Your task to perform on an android device: turn off smart reply in the gmail app Image 0: 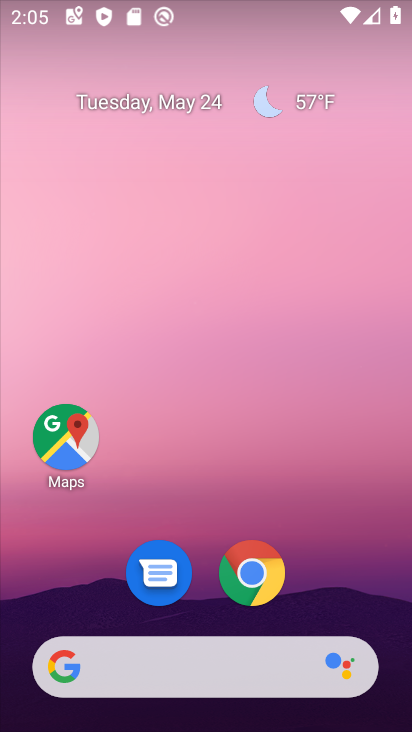
Step 0: drag from (332, 564) to (320, 86)
Your task to perform on an android device: turn off smart reply in the gmail app Image 1: 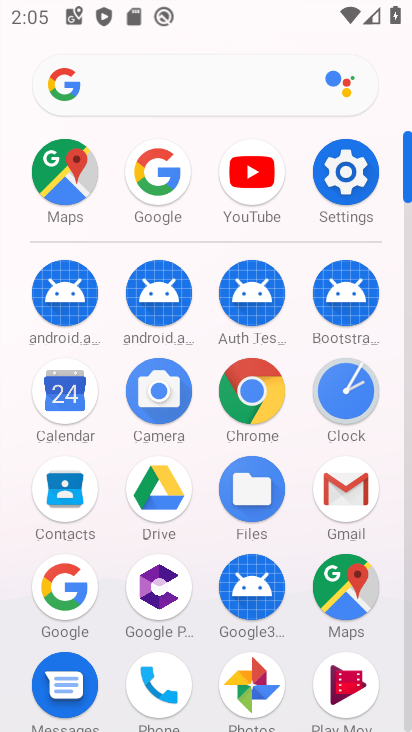
Step 1: click (344, 486)
Your task to perform on an android device: turn off smart reply in the gmail app Image 2: 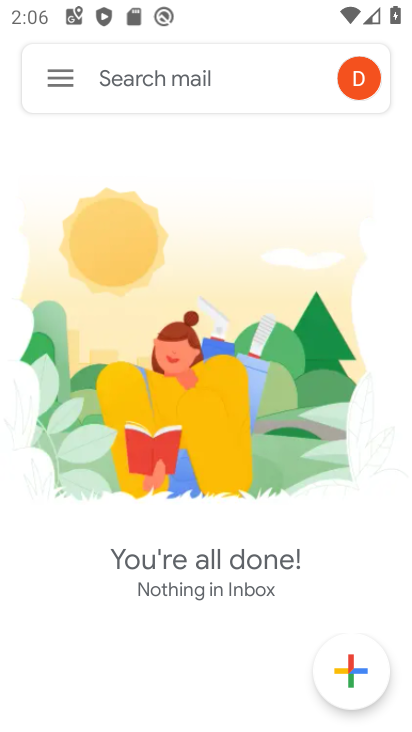
Step 2: click (58, 99)
Your task to perform on an android device: turn off smart reply in the gmail app Image 3: 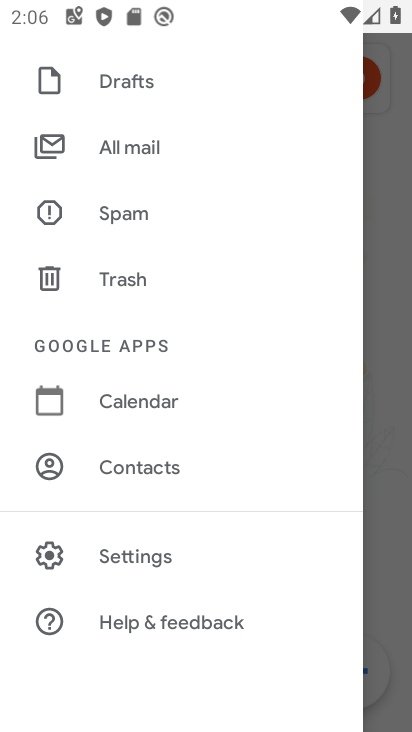
Step 3: click (184, 551)
Your task to perform on an android device: turn off smart reply in the gmail app Image 4: 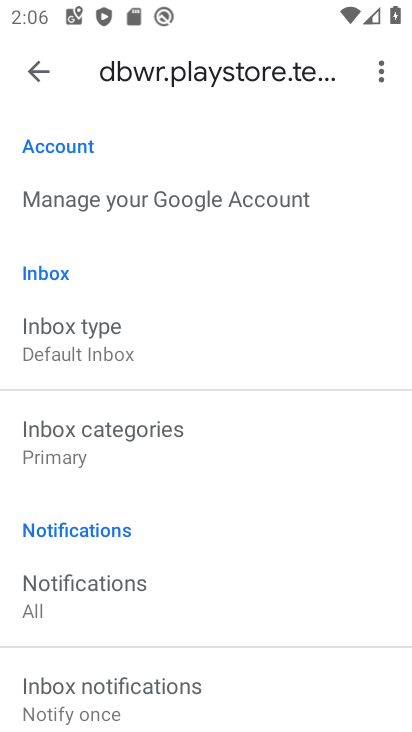
Step 4: drag from (187, 613) to (196, 301)
Your task to perform on an android device: turn off smart reply in the gmail app Image 5: 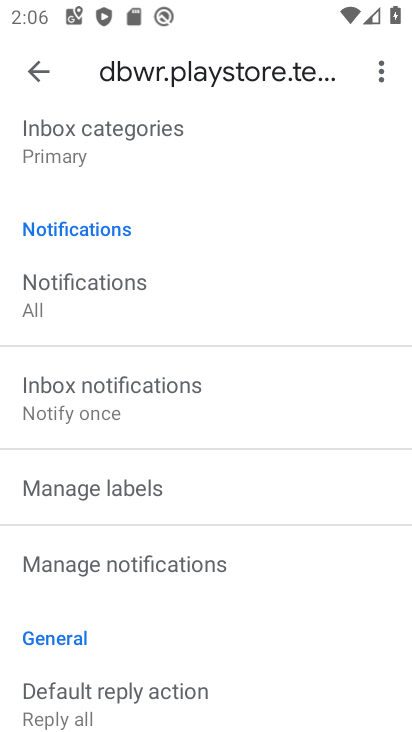
Step 5: drag from (202, 616) to (219, 183)
Your task to perform on an android device: turn off smart reply in the gmail app Image 6: 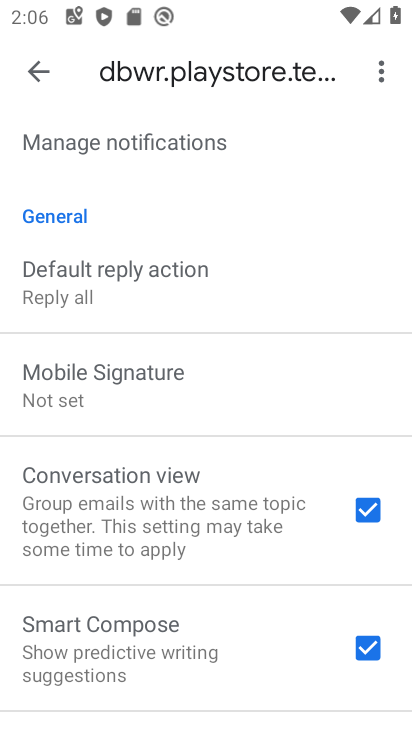
Step 6: drag from (296, 614) to (300, 413)
Your task to perform on an android device: turn off smart reply in the gmail app Image 7: 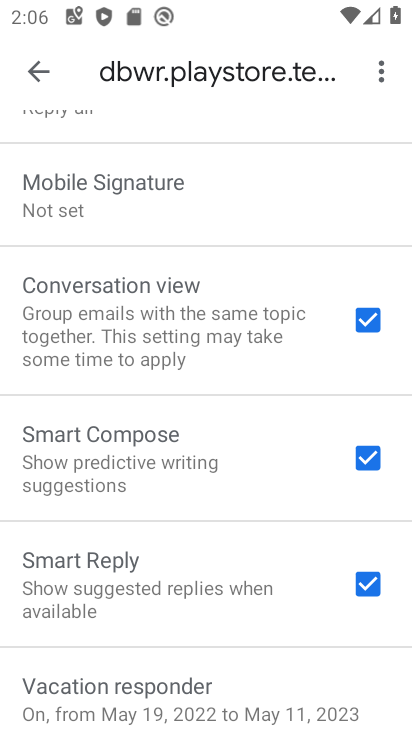
Step 7: click (369, 579)
Your task to perform on an android device: turn off smart reply in the gmail app Image 8: 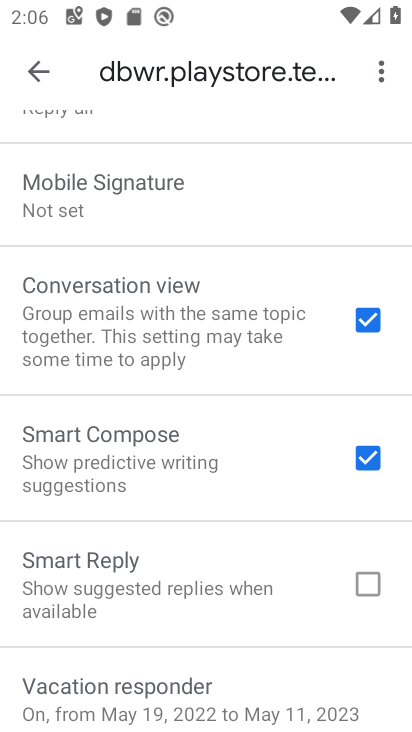
Step 8: task complete